Your task to perform on an android device: remove spam from my inbox in the gmail app Image 0: 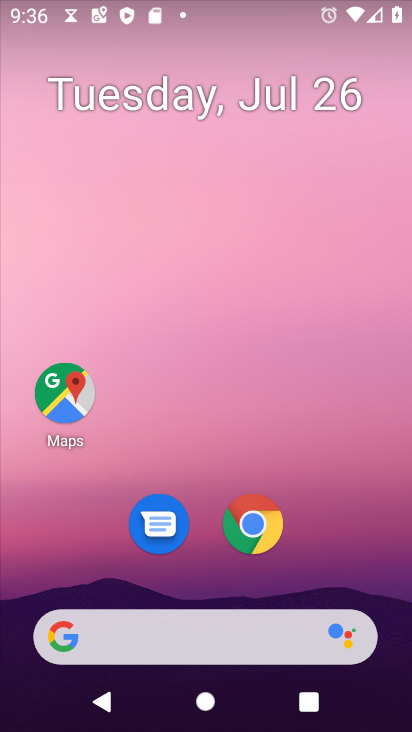
Step 0: drag from (201, 588) to (312, 188)
Your task to perform on an android device: remove spam from my inbox in the gmail app Image 1: 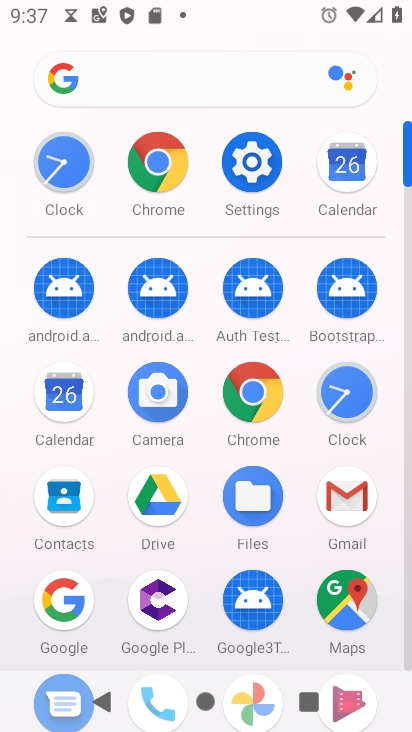
Step 1: click (337, 515)
Your task to perform on an android device: remove spam from my inbox in the gmail app Image 2: 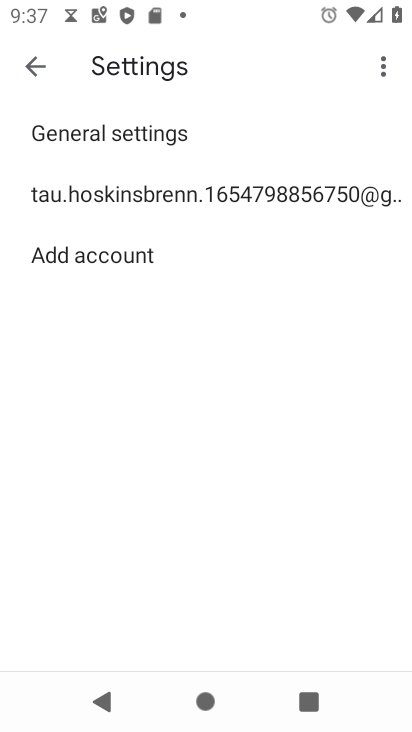
Step 2: click (37, 62)
Your task to perform on an android device: remove spam from my inbox in the gmail app Image 3: 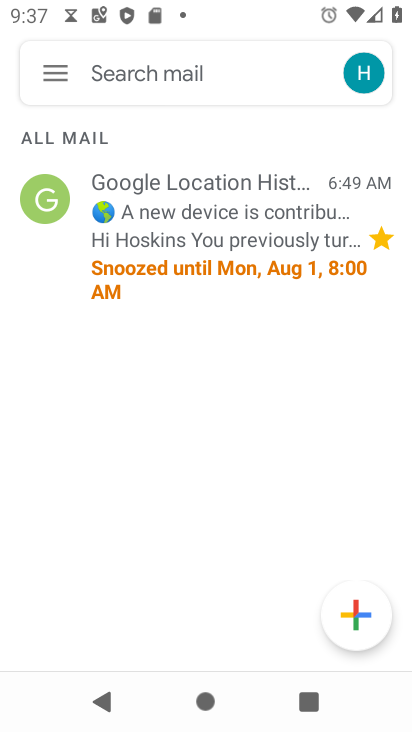
Step 3: click (37, 61)
Your task to perform on an android device: remove spam from my inbox in the gmail app Image 4: 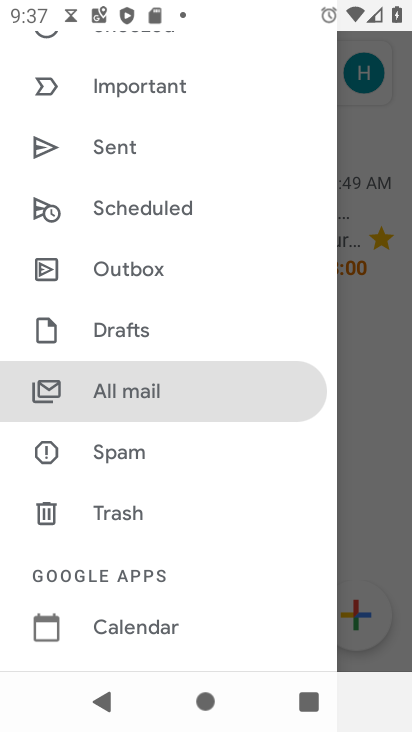
Step 4: click (145, 456)
Your task to perform on an android device: remove spam from my inbox in the gmail app Image 5: 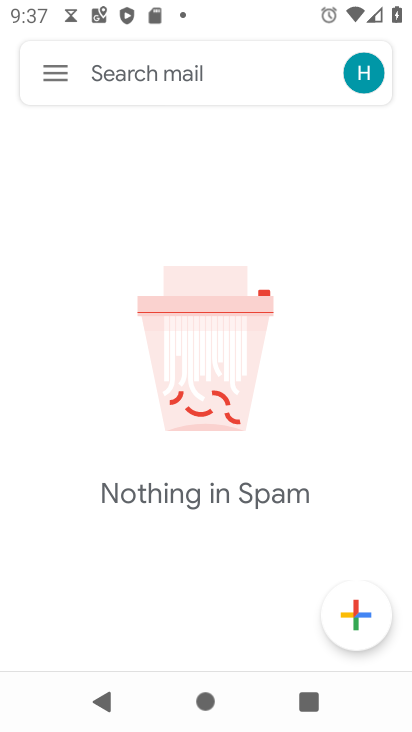
Step 5: task complete